Your task to perform on an android device: Open the map Image 0: 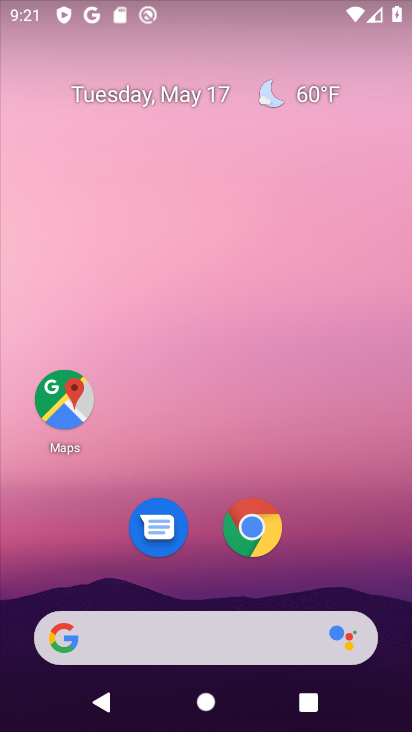
Step 0: click (72, 402)
Your task to perform on an android device: Open the map Image 1: 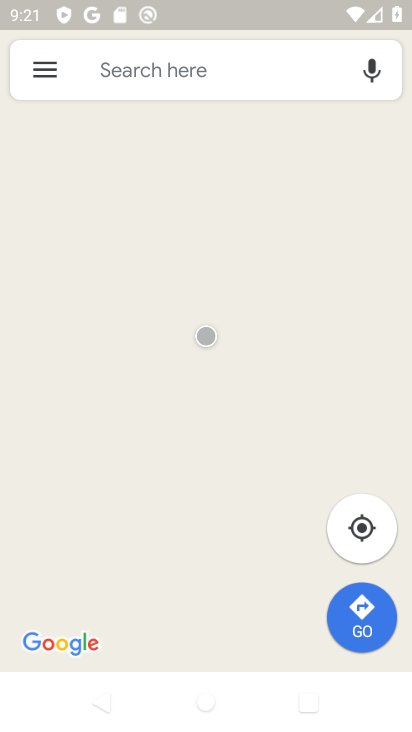
Step 1: task complete